Your task to perform on an android device: Search for razer blade on newegg.com, select the first entry, add it to the cart, then select checkout. Image 0: 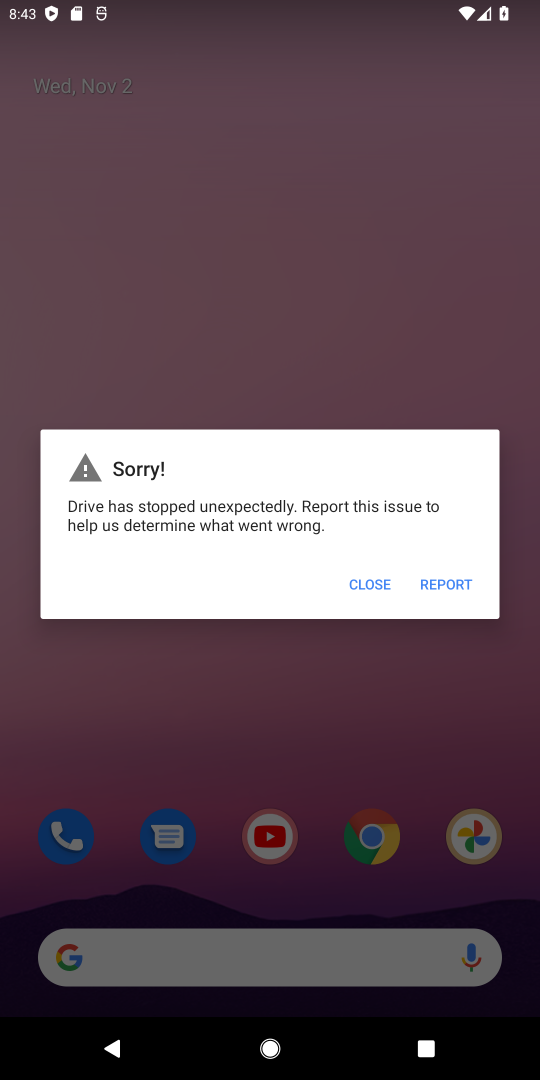
Step 0: press home button
Your task to perform on an android device: Search for razer blade on newegg.com, select the first entry, add it to the cart, then select checkout. Image 1: 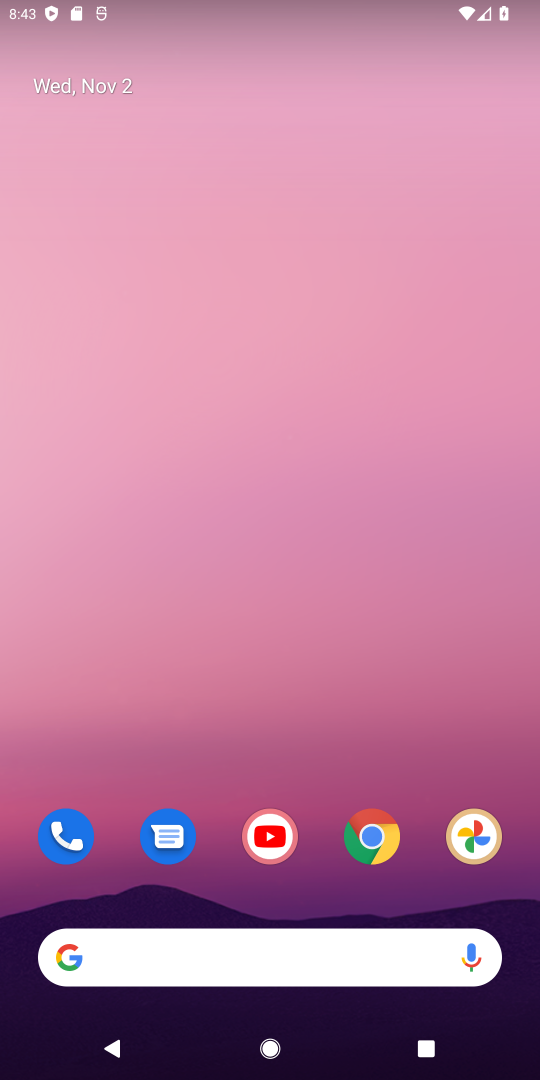
Step 1: click (369, 835)
Your task to perform on an android device: Search for razer blade on newegg.com, select the first entry, add it to the cart, then select checkout. Image 2: 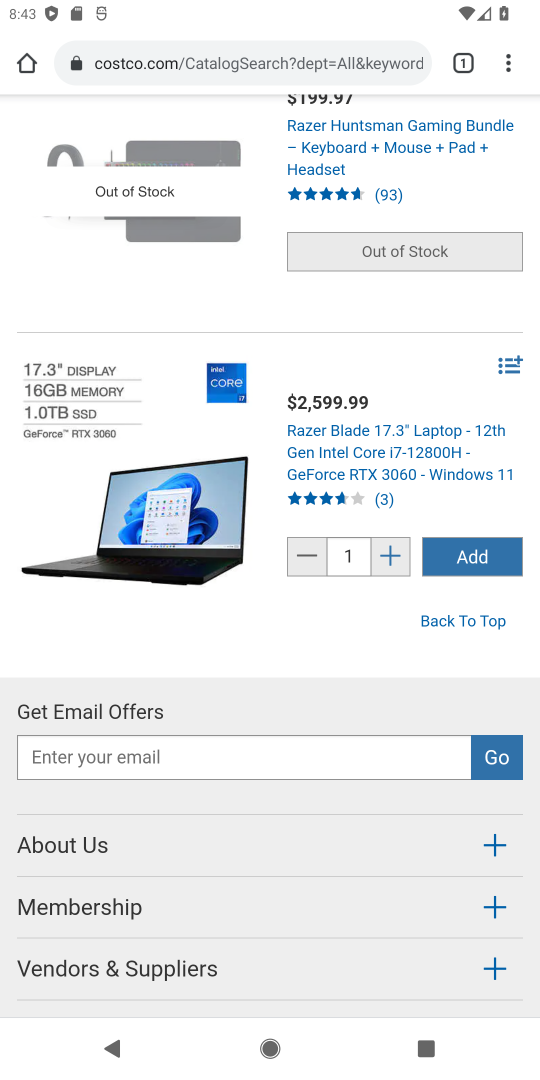
Step 2: click (260, 43)
Your task to perform on an android device: Search for razer blade on newegg.com, select the first entry, add it to the cart, then select checkout. Image 3: 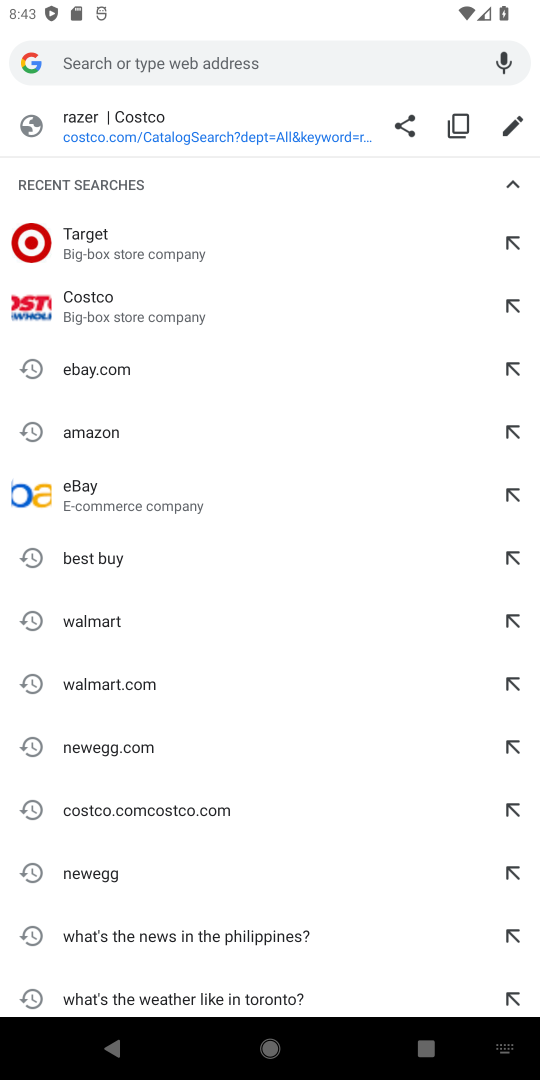
Step 3: click (104, 740)
Your task to perform on an android device: Search for razer blade on newegg.com, select the first entry, add it to the cart, then select checkout. Image 4: 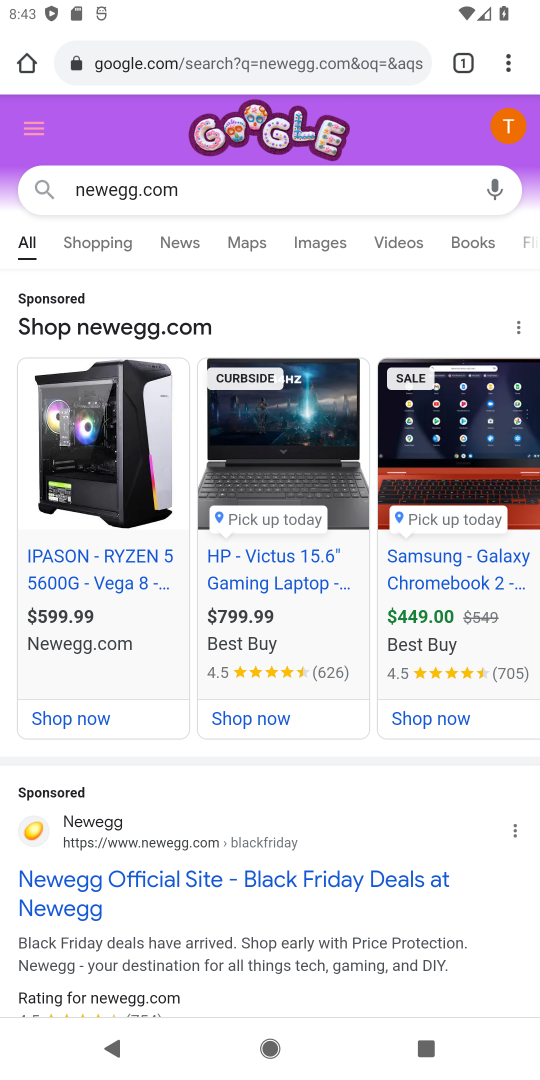
Step 4: click (84, 888)
Your task to perform on an android device: Search for razer blade on newegg.com, select the first entry, add it to the cart, then select checkout. Image 5: 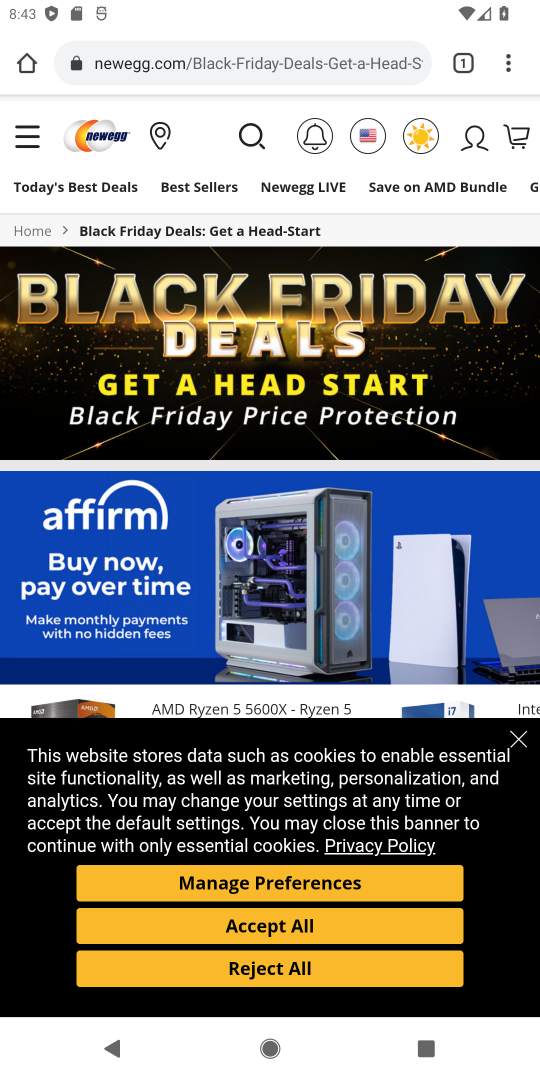
Step 5: click (270, 930)
Your task to perform on an android device: Search for razer blade on newegg.com, select the first entry, add it to the cart, then select checkout. Image 6: 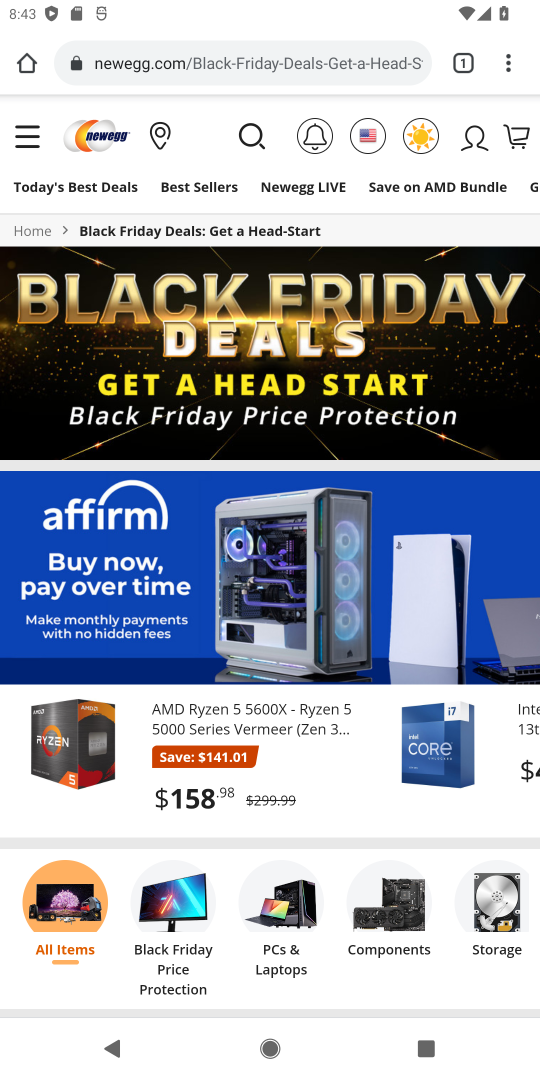
Step 6: click (246, 132)
Your task to perform on an android device: Search for razer blade on newegg.com, select the first entry, add it to the cart, then select checkout. Image 7: 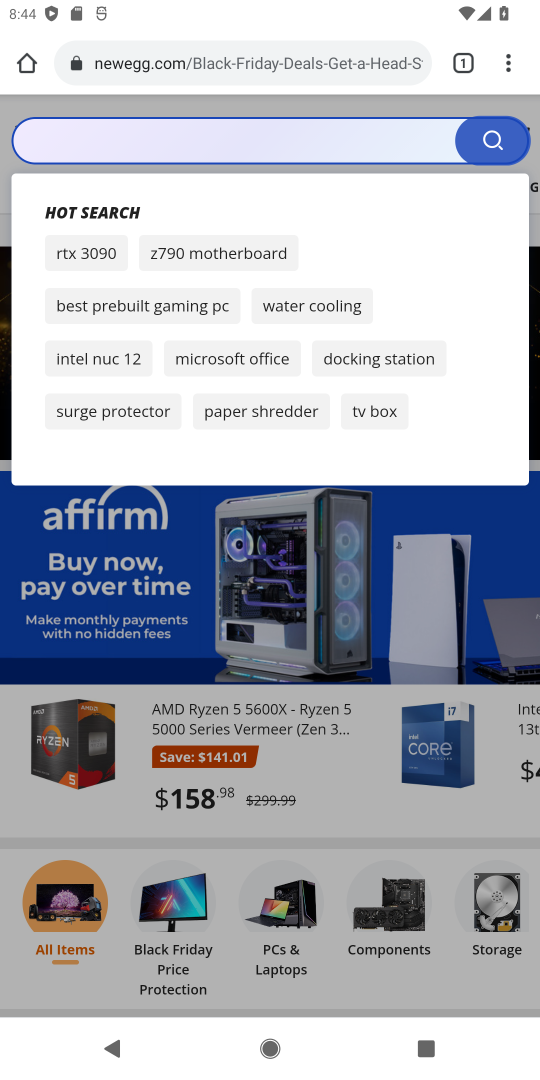
Step 7: click (82, 133)
Your task to perform on an android device: Search for razer blade on newegg.com, select the first entry, add it to the cart, then select checkout. Image 8: 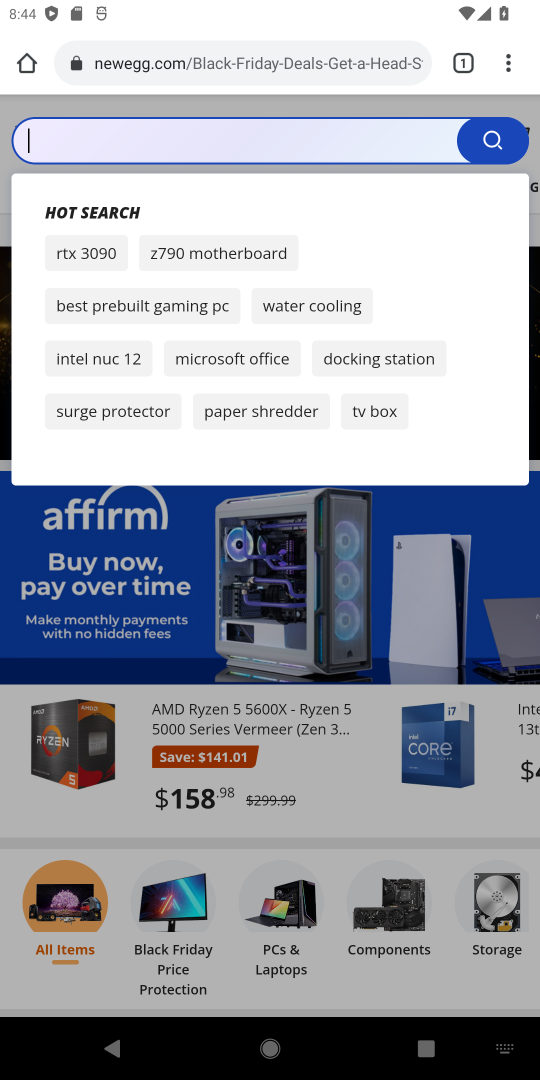
Step 8: type "razer blade"
Your task to perform on an android device: Search for razer blade on newegg.com, select the first entry, add it to the cart, then select checkout. Image 9: 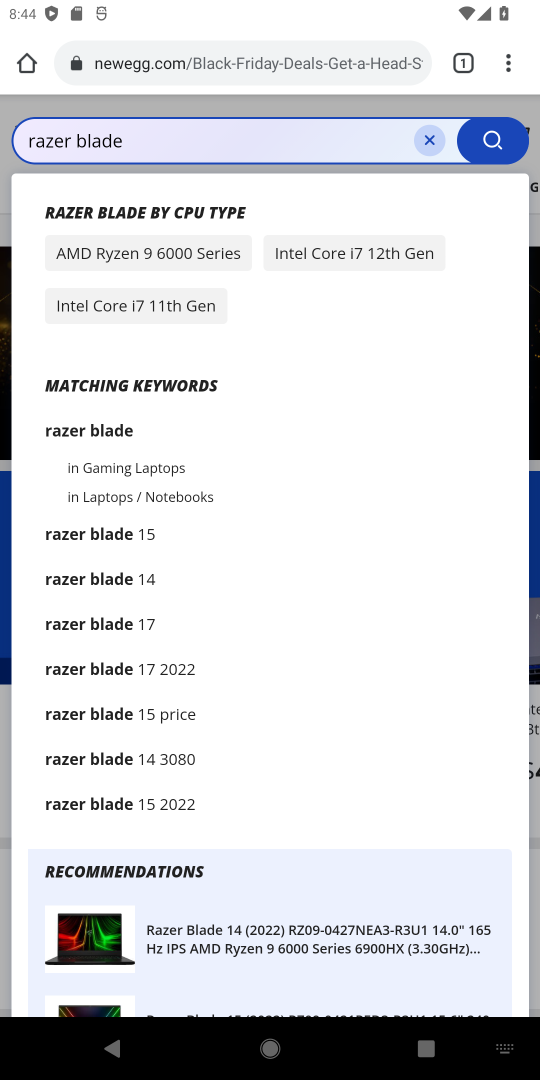
Step 9: click (77, 428)
Your task to perform on an android device: Search for razer blade on newegg.com, select the first entry, add it to the cart, then select checkout. Image 10: 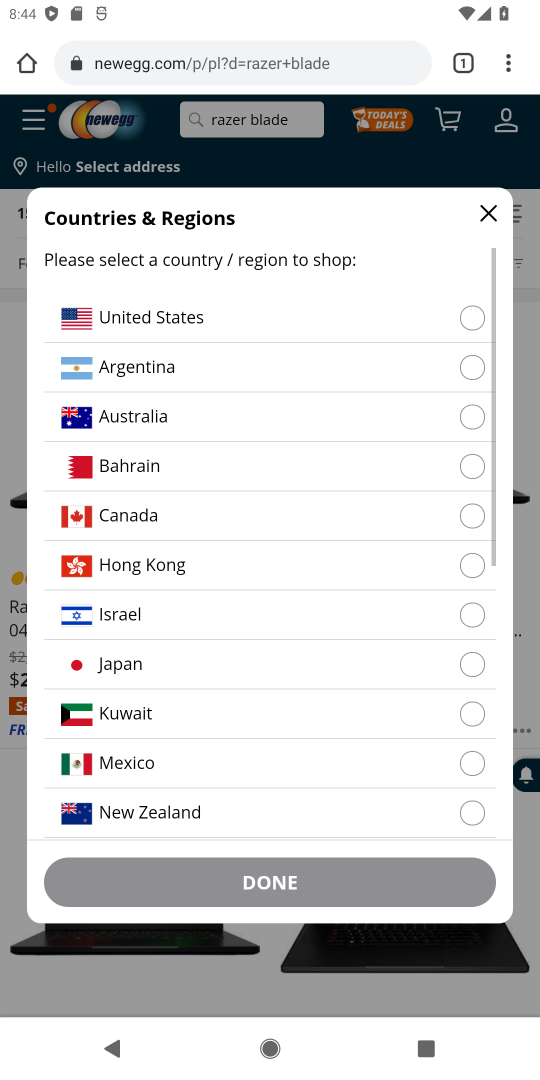
Step 10: click (471, 313)
Your task to perform on an android device: Search for razer blade on newegg.com, select the first entry, add it to the cart, then select checkout. Image 11: 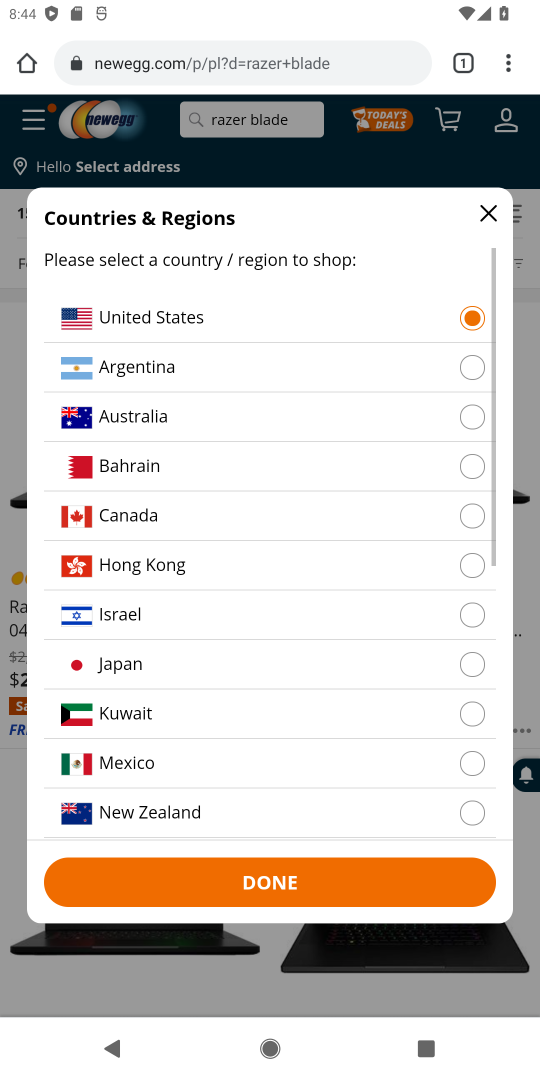
Step 11: click (272, 880)
Your task to perform on an android device: Search for razer blade on newegg.com, select the first entry, add it to the cart, then select checkout. Image 12: 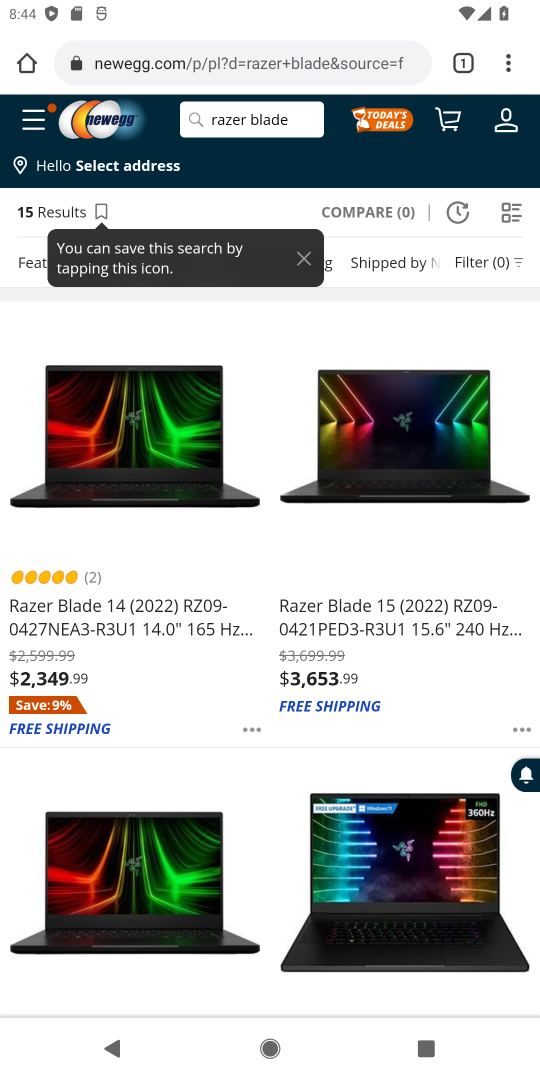
Step 12: click (100, 597)
Your task to perform on an android device: Search for razer blade on newegg.com, select the first entry, add it to the cart, then select checkout. Image 13: 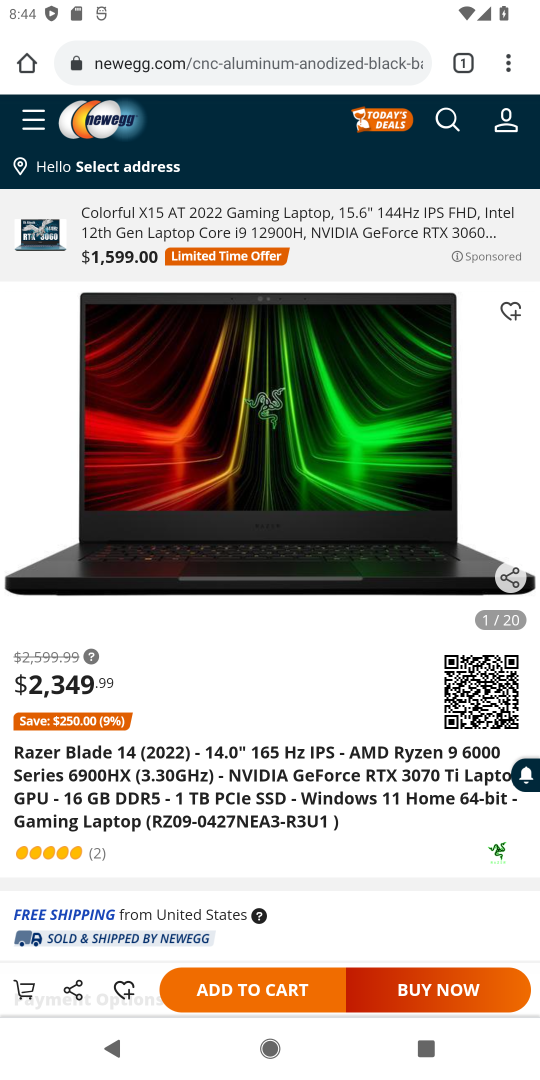
Step 13: click (257, 987)
Your task to perform on an android device: Search for razer blade on newegg.com, select the first entry, add it to the cart, then select checkout. Image 14: 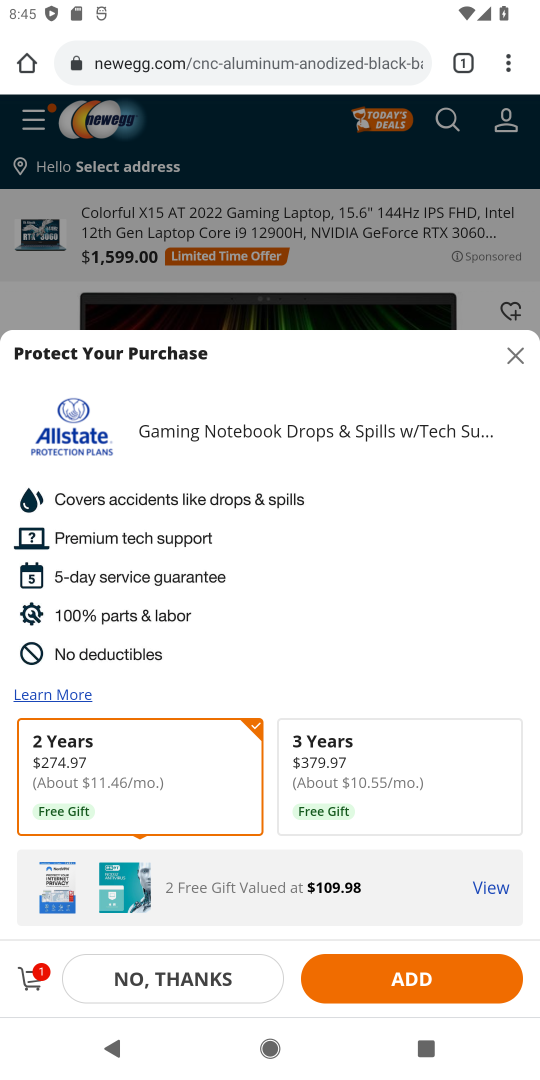
Step 14: click (34, 978)
Your task to perform on an android device: Search for razer blade on newegg.com, select the first entry, add it to the cart, then select checkout. Image 15: 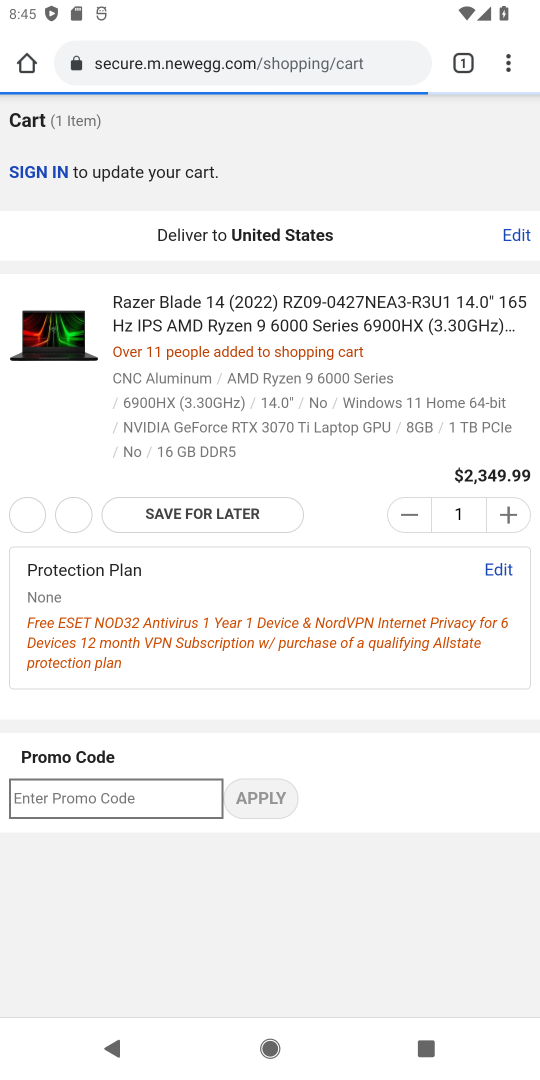
Step 15: click (26, 990)
Your task to perform on an android device: Search for razer blade on newegg.com, select the first entry, add it to the cart, then select checkout. Image 16: 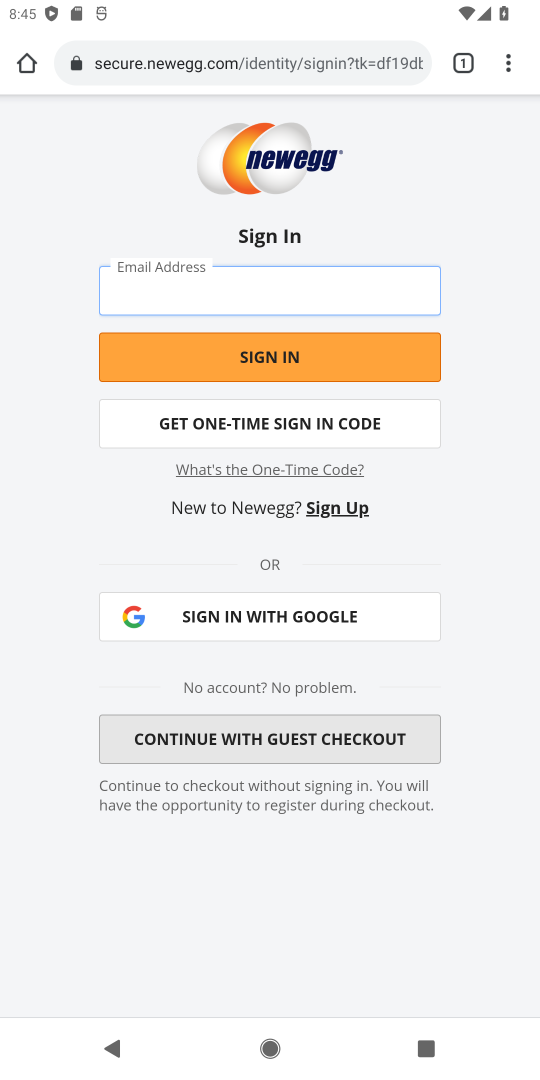
Step 16: task complete